Your task to perform on an android device: manage bookmarks in the chrome app Image 0: 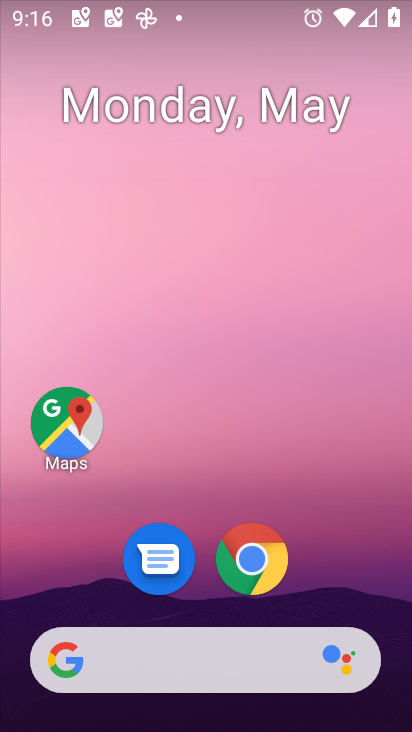
Step 0: drag from (390, 668) to (248, 136)
Your task to perform on an android device: manage bookmarks in the chrome app Image 1: 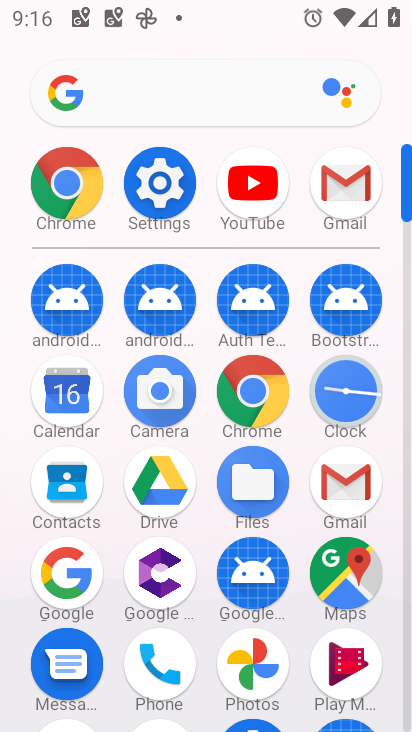
Step 1: click (254, 385)
Your task to perform on an android device: manage bookmarks in the chrome app Image 2: 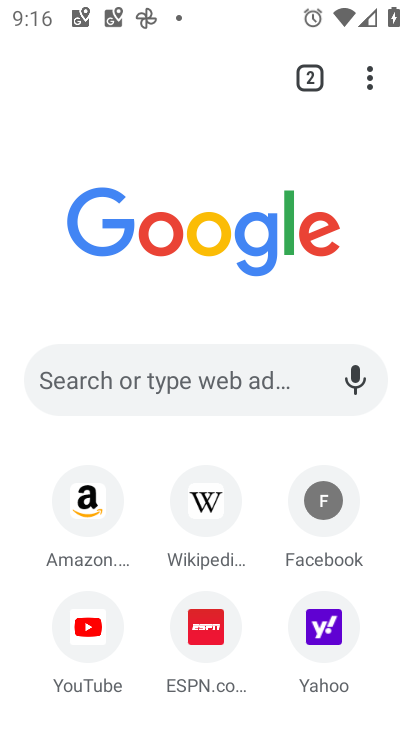
Step 2: click (363, 68)
Your task to perform on an android device: manage bookmarks in the chrome app Image 3: 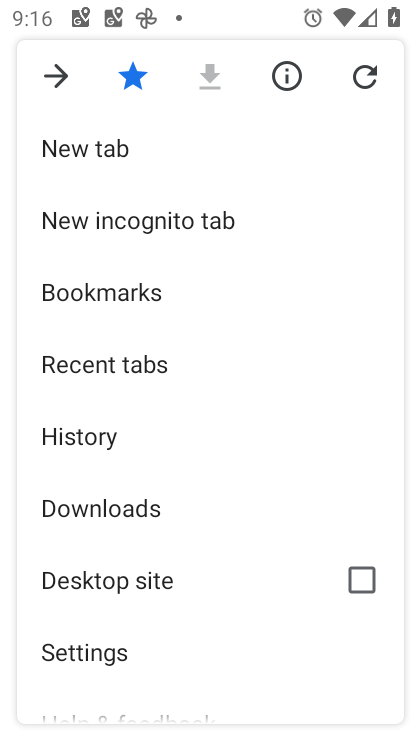
Step 3: click (261, 297)
Your task to perform on an android device: manage bookmarks in the chrome app Image 4: 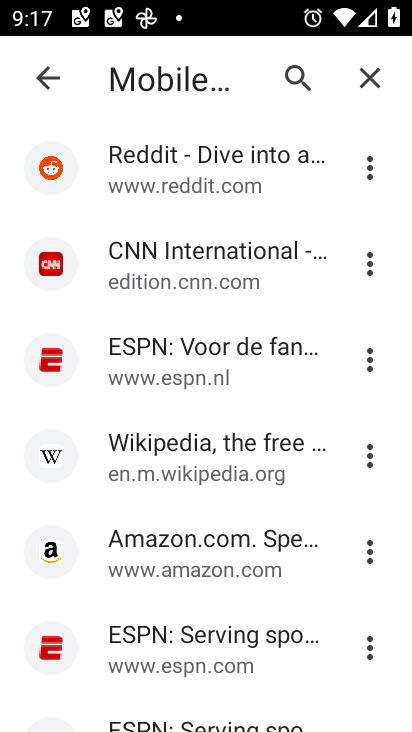
Step 4: task complete